Your task to perform on an android device: change the clock display to analog Image 0: 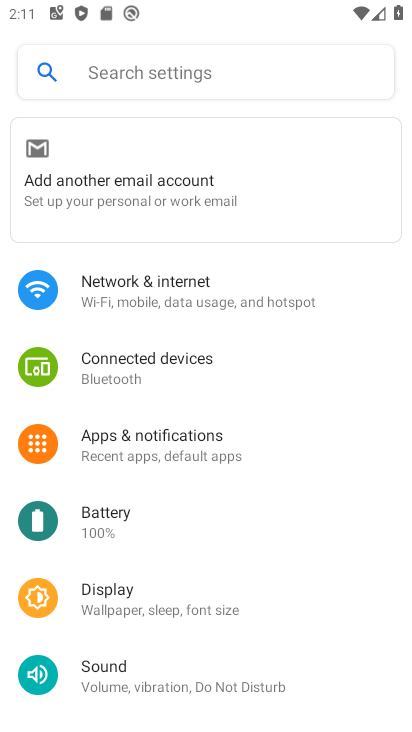
Step 0: press home button
Your task to perform on an android device: change the clock display to analog Image 1: 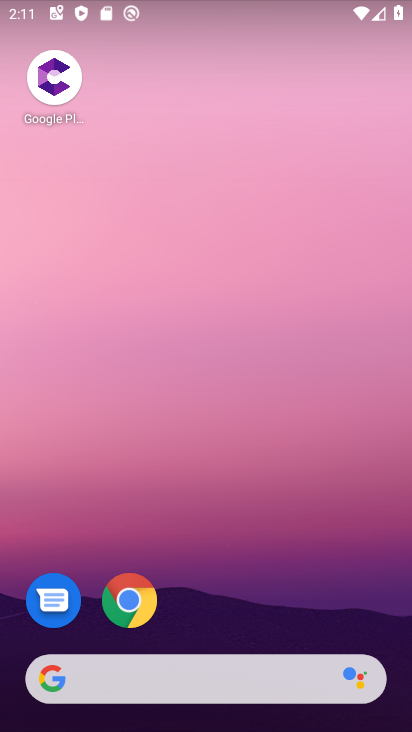
Step 1: drag from (228, 606) to (236, 46)
Your task to perform on an android device: change the clock display to analog Image 2: 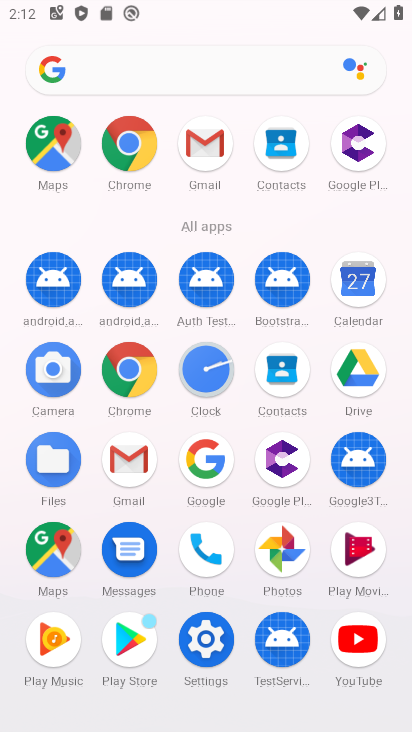
Step 2: click (205, 367)
Your task to perform on an android device: change the clock display to analog Image 3: 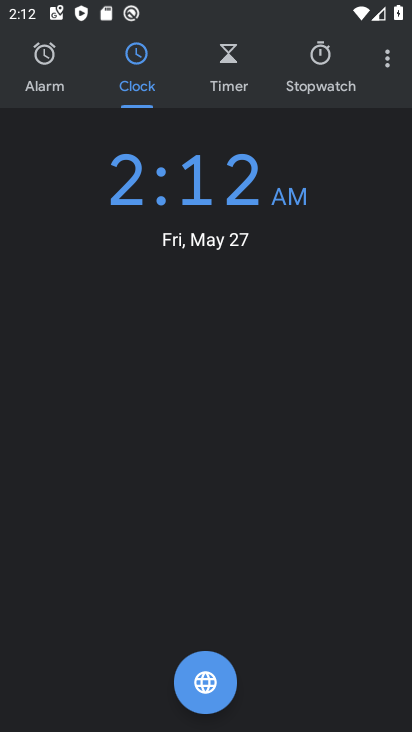
Step 3: click (388, 55)
Your task to perform on an android device: change the clock display to analog Image 4: 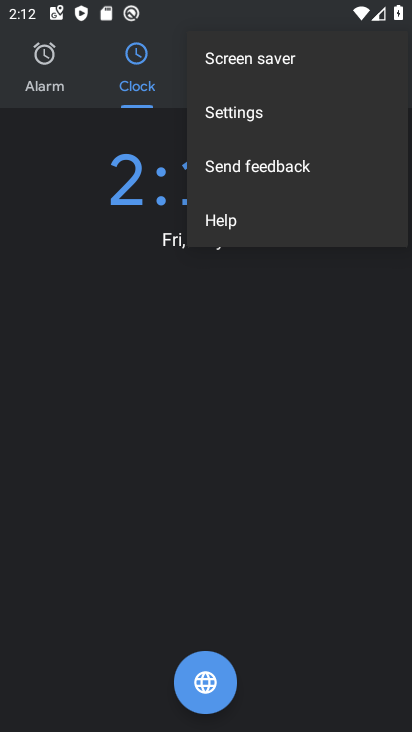
Step 4: click (237, 119)
Your task to perform on an android device: change the clock display to analog Image 5: 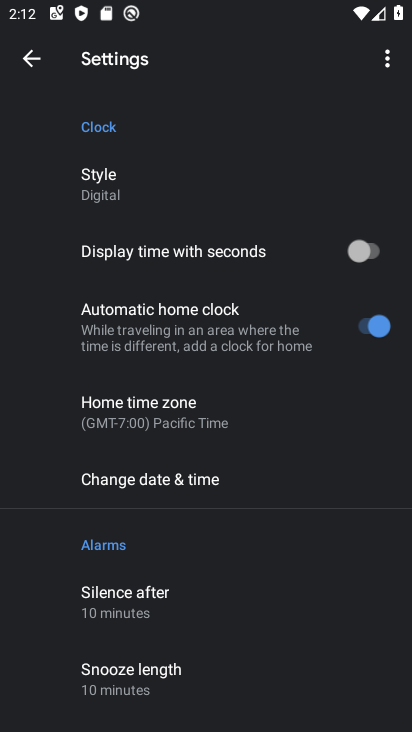
Step 5: click (107, 187)
Your task to perform on an android device: change the clock display to analog Image 6: 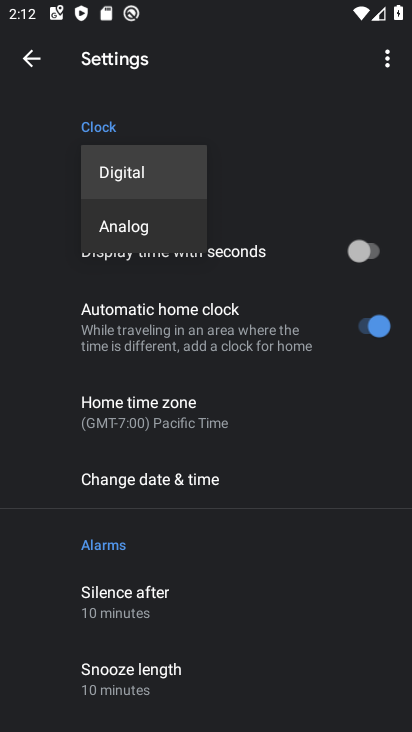
Step 6: click (145, 227)
Your task to perform on an android device: change the clock display to analog Image 7: 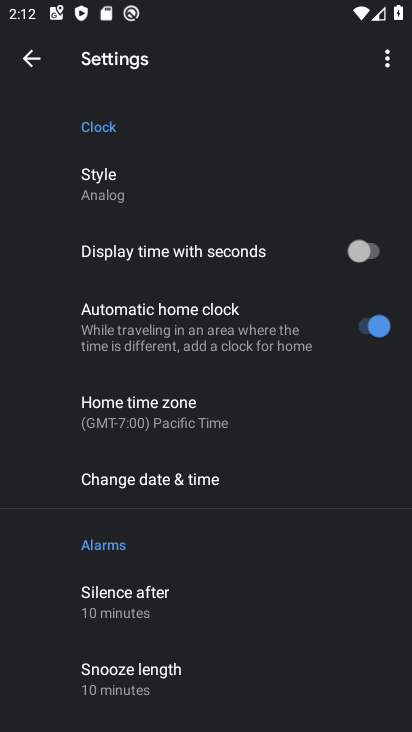
Step 7: task complete